Your task to perform on an android device: Open wifi settings Image 0: 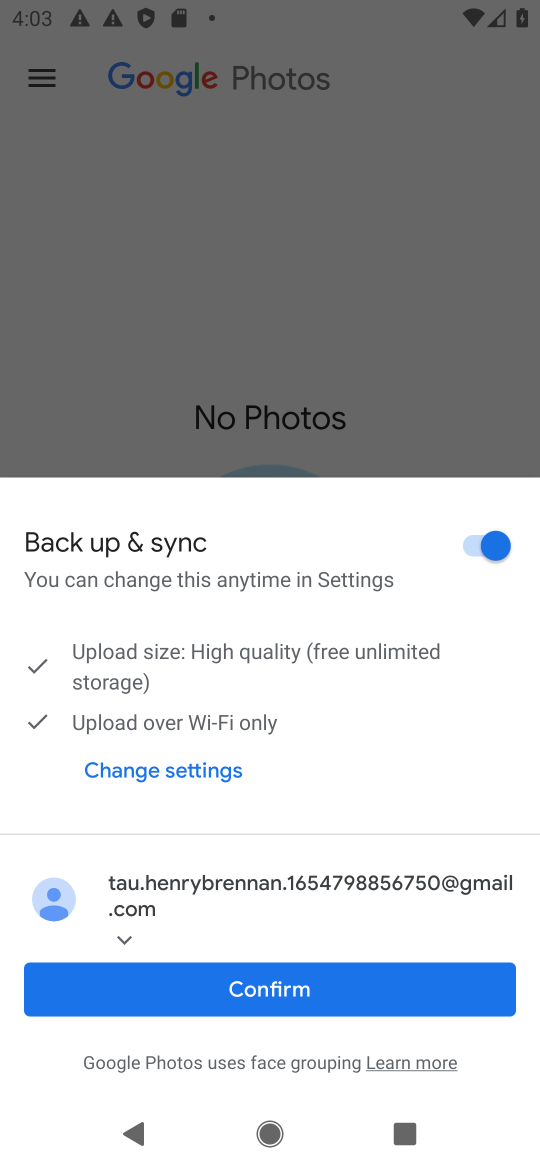
Step 0: drag from (243, 485) to (286, 725)
Your task to perform on an android device: Open wifi settings Image 1: 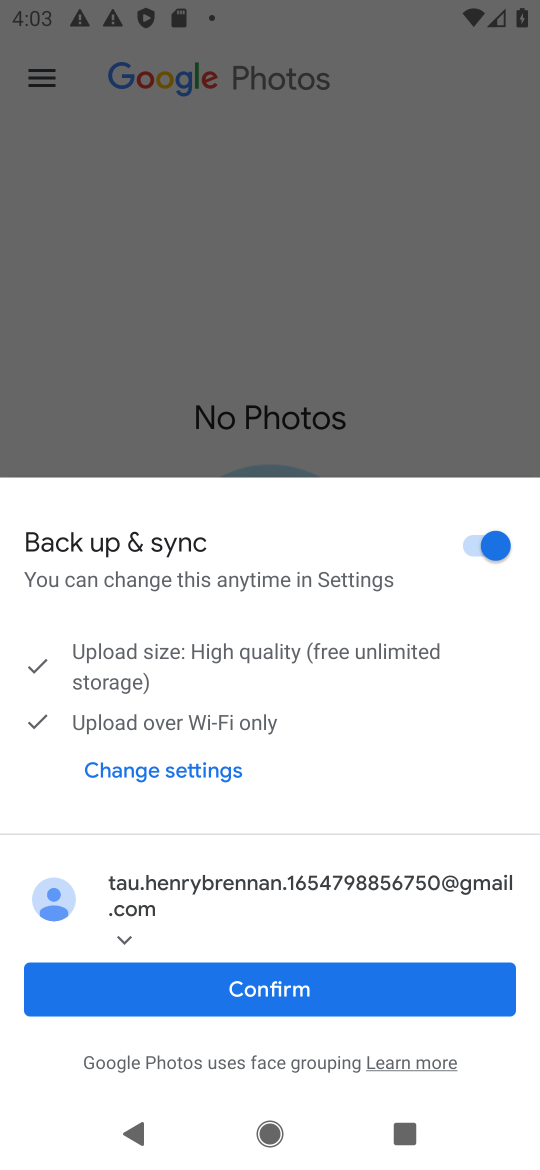
Step 1: drag from (230, 11) to (493, 908)
Your task to perform on an android device: Open wifi settings Image 2: 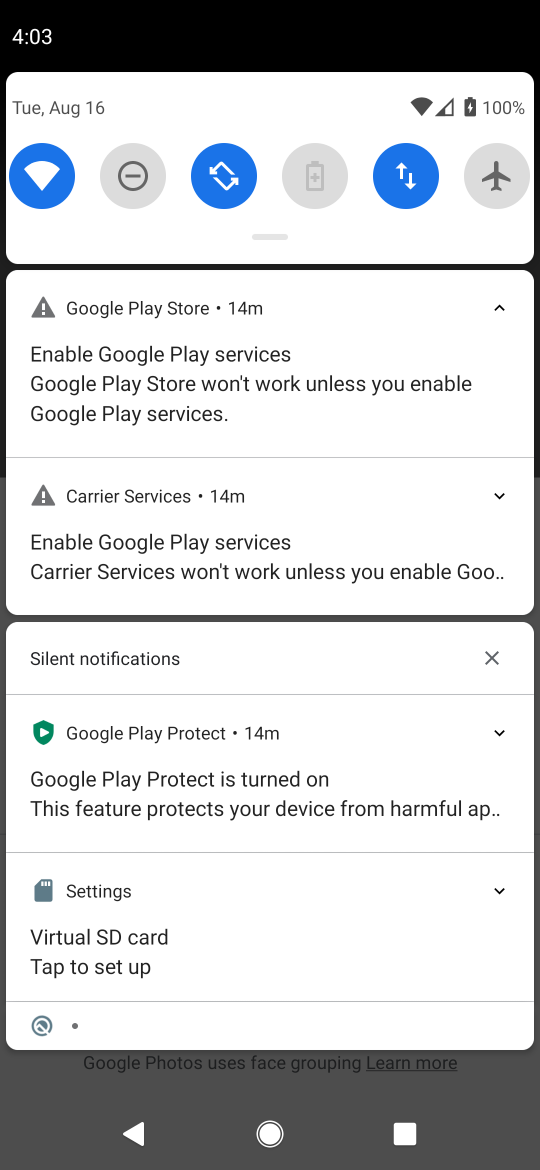
Step 2: click (51, 167)
Your task to perform on an android device: Open wifi settings Image 3: 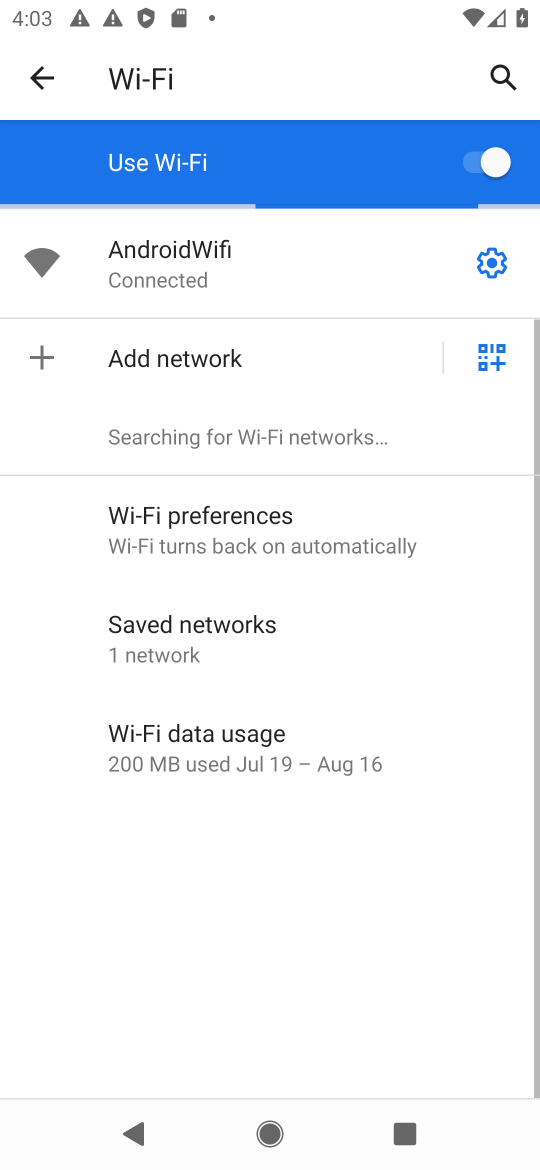
Step 3: task complete